Your task to perform on an android device: toggle airplane mode Image 0: 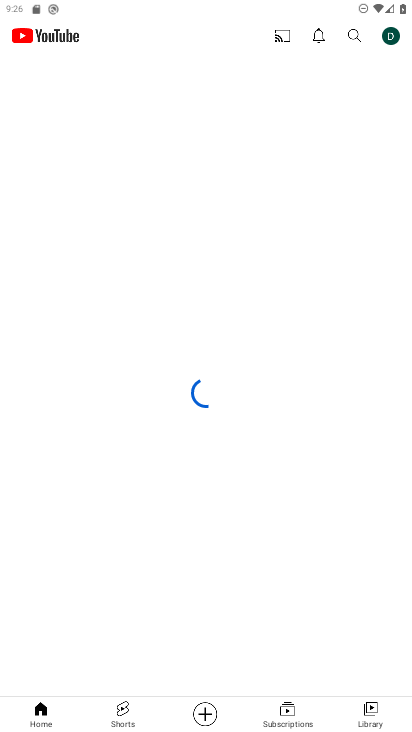
Step 0: press home button
Your task to perform on an android device: toggle airplane mode Image 1: 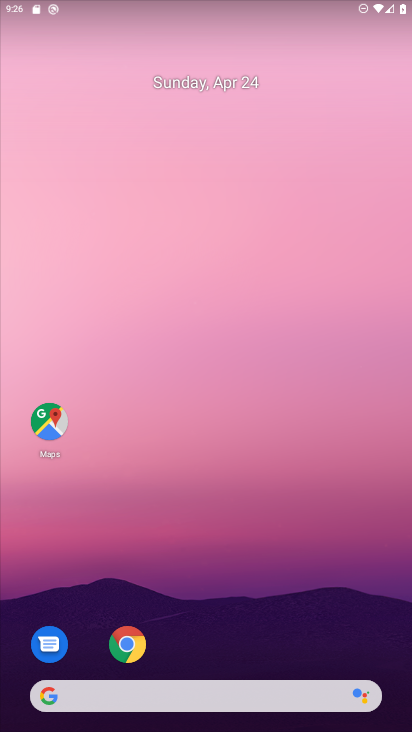
Step 1: drag from (213, 675) to (351, 16)
Your task to perform on an android device: toggle airplane mode Image 2: 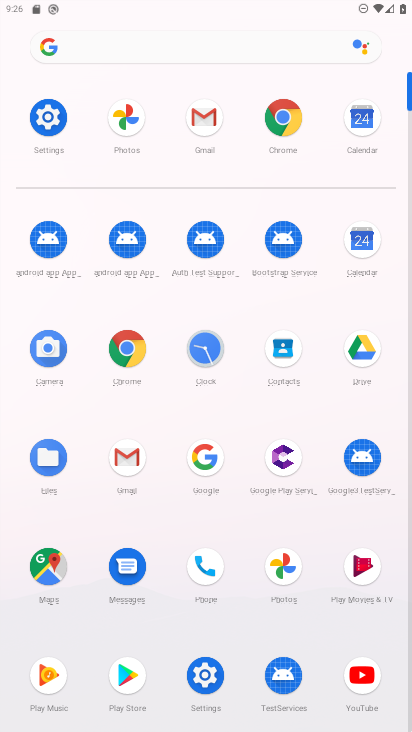
Step 2: click (46, 109)
Your task to perform on an android device: toggle airplane mode Image 3: 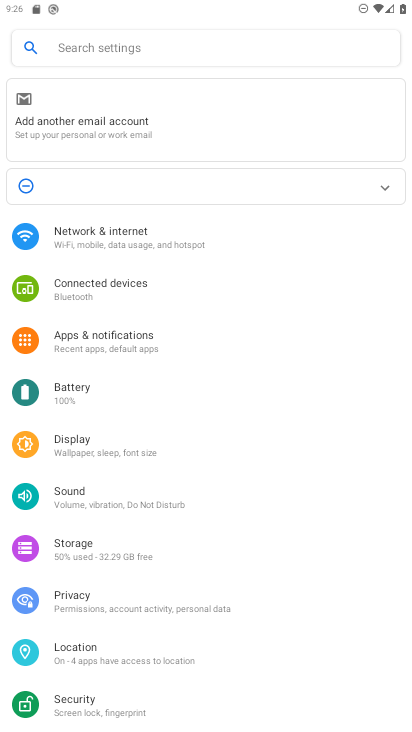
Step 3: click (116, 229)
Your task to perform on an android device: toggle airplane mode Image 4: 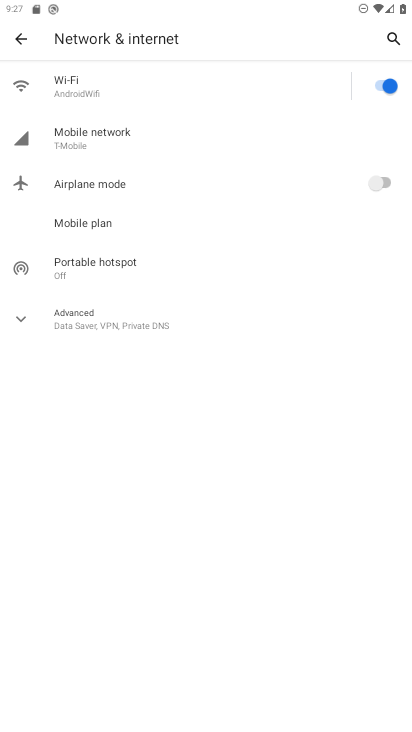
Step 4: click (386, 182)
Your task to perform on an android device: toggle airplane mode Image 5: 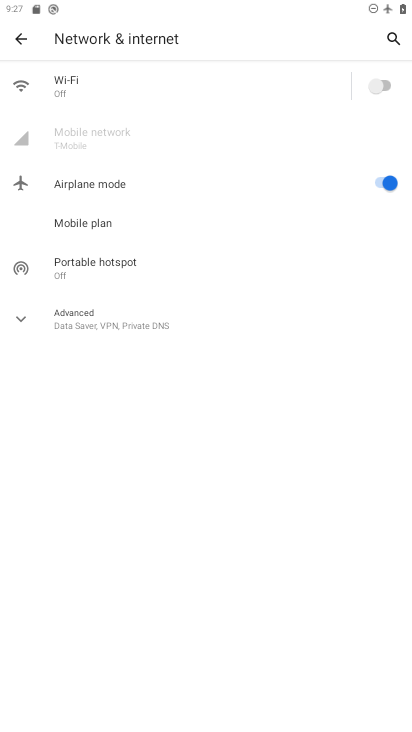
Step 5: task complete